Your task to perform on an android device: Open Wikipedia Image 0: 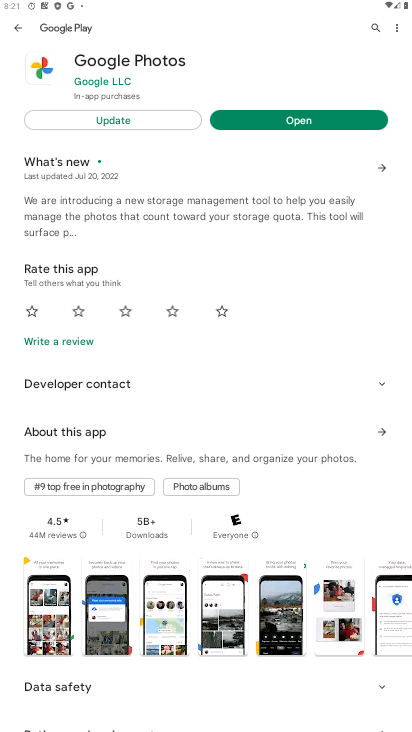
Step 0: press home button
Your task to perform on an android device: Open Wikipedia Image 1: 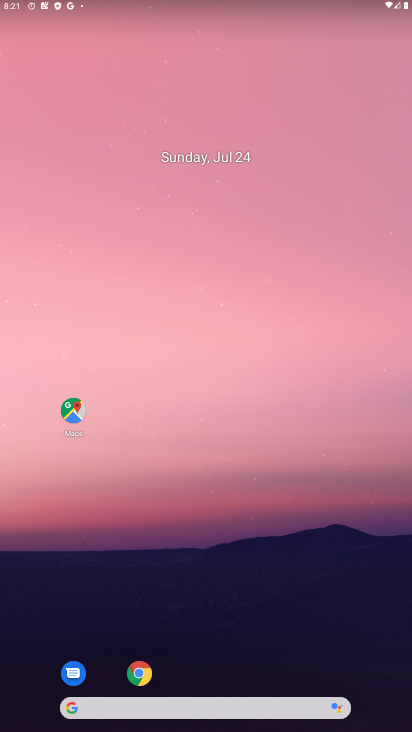
Step 1: click (98, 705)
Your task to perform on an android device: Open Wikipedia Image 2: 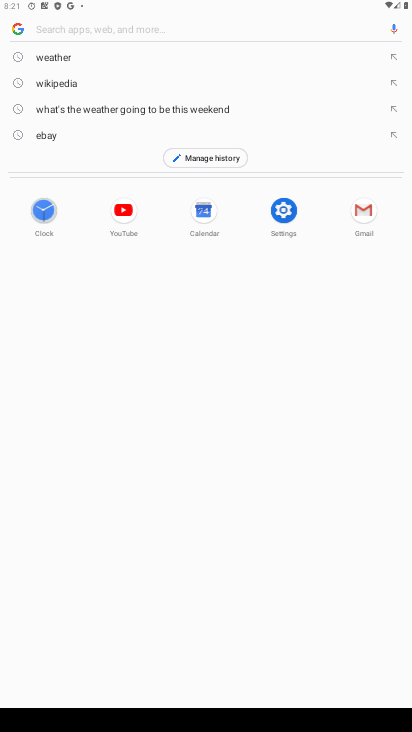
Step 2: click (57, 84)
Your task to perform on an android device: Open Wikipedia Image 3: 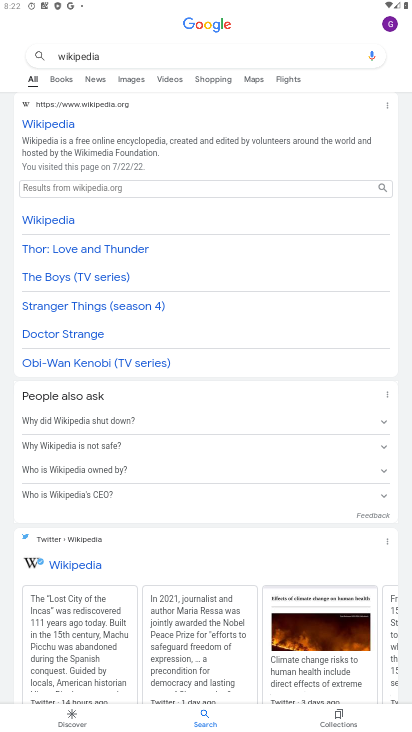
Step 3: task complete